Your task to perform on an android device: open device folders in google photos Image 0: 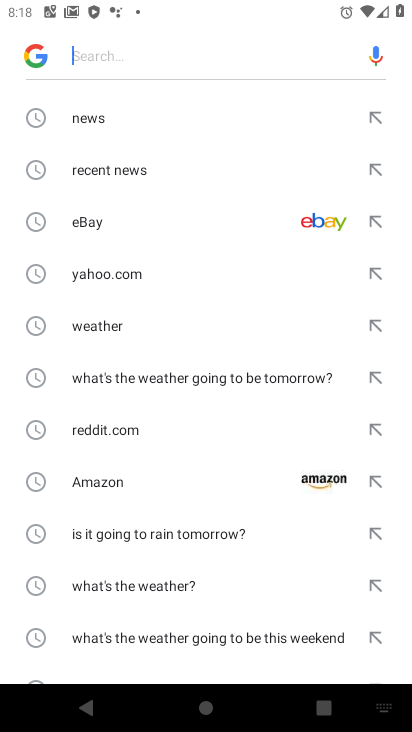
Step 0: press back button
Your task to perform on an android device: open device folders in google photos Image 1: 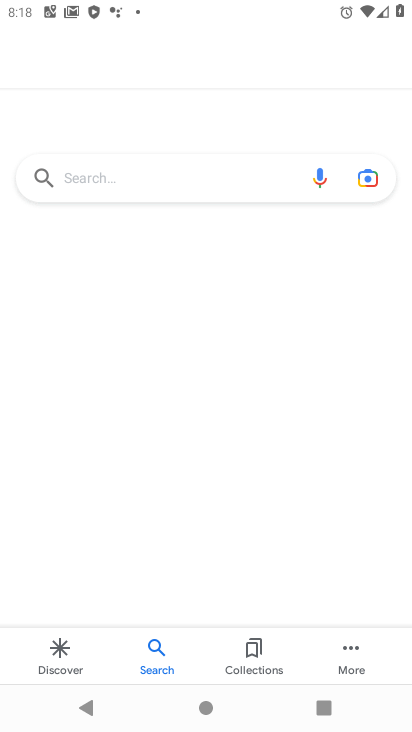
Step 1: press back button
Your task to perform on an android device: open device folders in google photos Image 2: 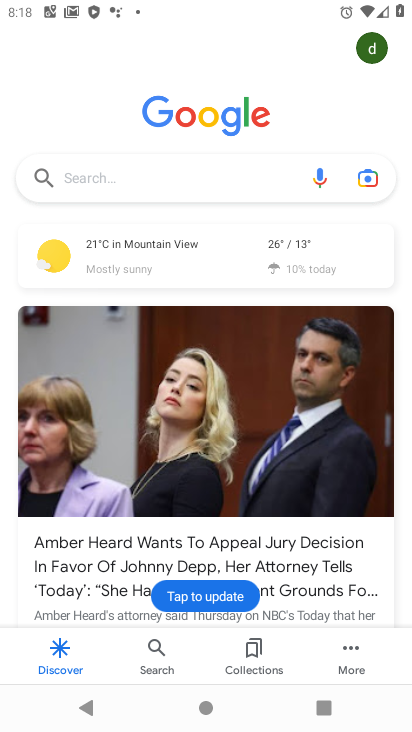
Step 2: press back button
Your task to perform on an android device: open device folders in google photos Image 3: 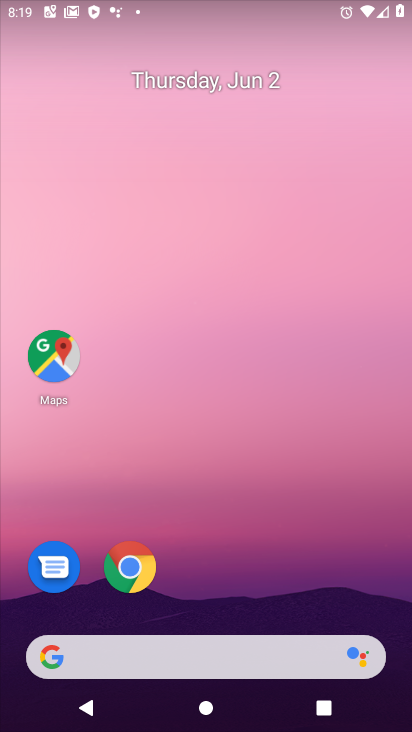
Step 3: drag from (240, 587) to (291, 169)
Your task to perform on an android device: open device folders in google photos Image 4: 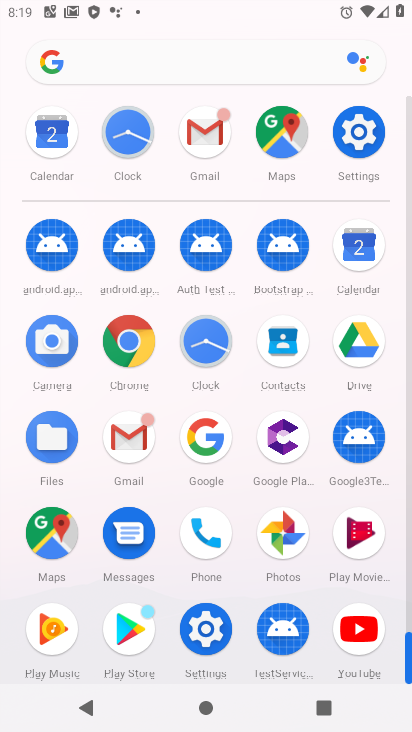
Step 4: click (282, 529)
Your task to perform on an android device: open device folders in google photos Image 5: 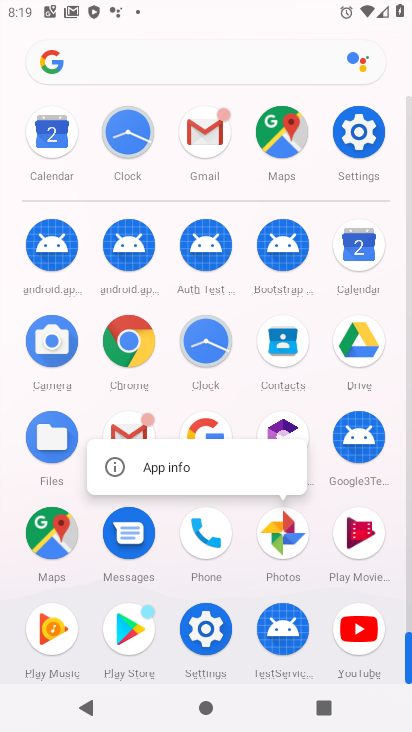
Step 5: click (283, 533)
Your task to perform on an android device: open device folders in google photos Image 6: 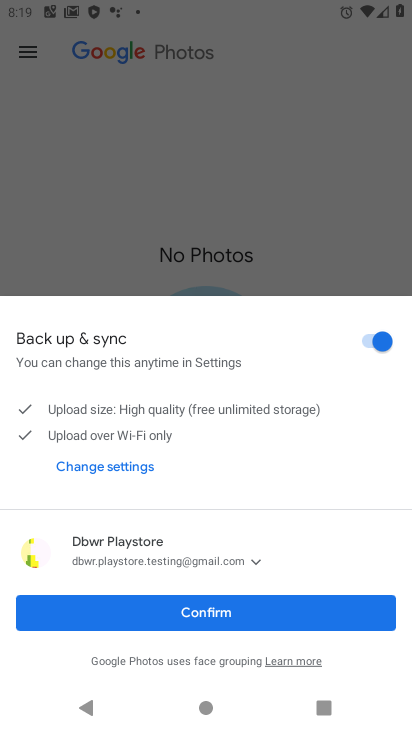
Step 6: click (202, 612)
Your task to perform on an android device: open device folders in google photos Image 7: 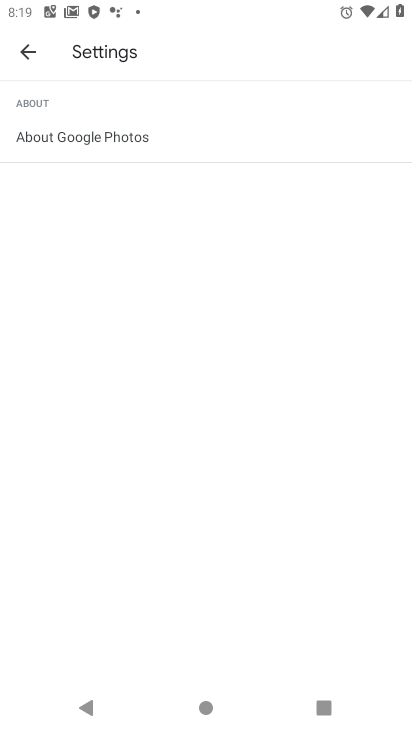
Step 7: click (26, 40)
Your task to perform on an android device: open device folders in google photos Image 8: 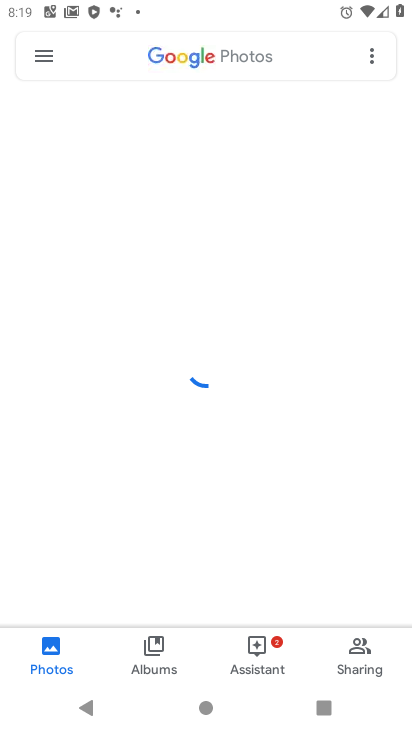
Step 8: click (39, 58)
Your task to perform on an android device: open device folders in google photos Image 9: 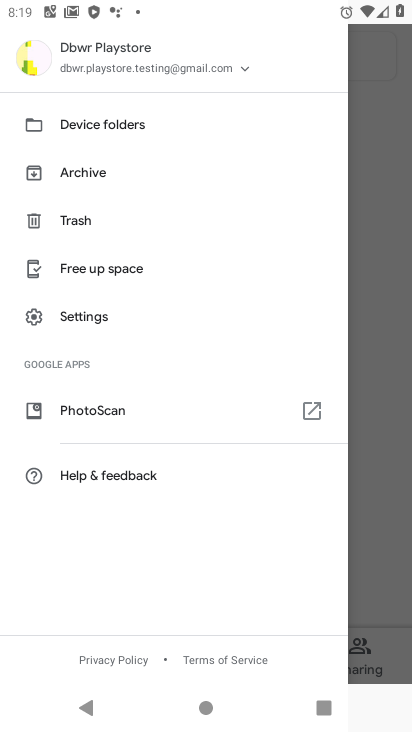
Step 9: click (96, 129)
Your task to perform on an android device: open device folders in google photos Image 10: 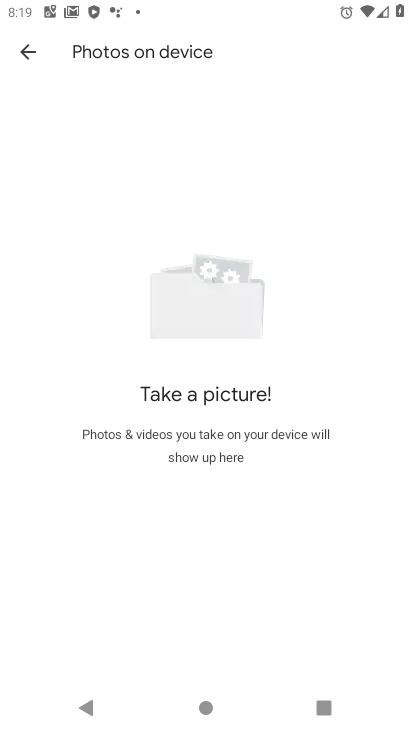
Step 10: task complete